Your task to perform on an android device: Open maps Image 0: 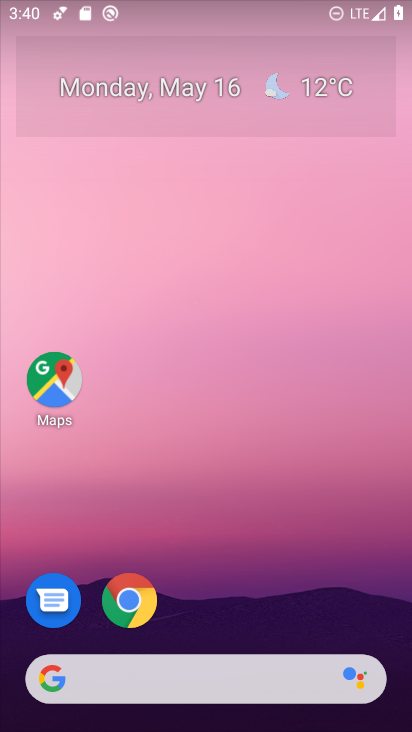
Step 0: click (51, 390)
Your task to perform on an android device: Open maps Image 1: 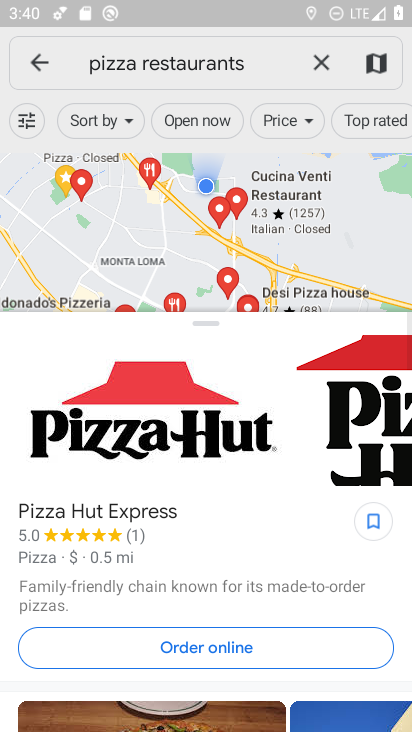
Step 1: task complete